Your task to perform on an android device: change the clock display to show seconds Image 0: 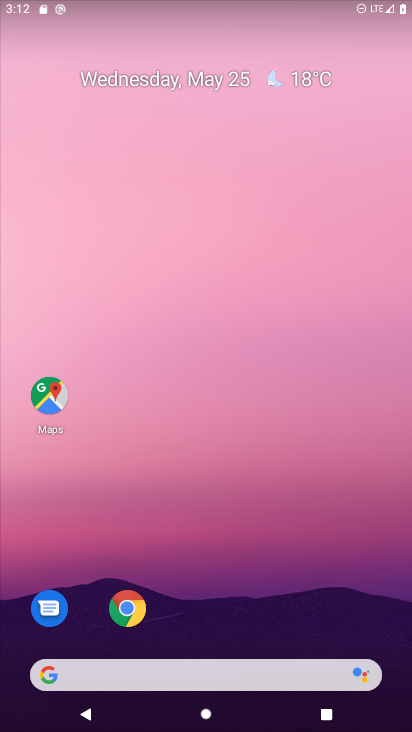
Step 0: drag from (404, 589) to (302, 121)
Your task to perform on an android device: change the clock display to show seconds Image 1: 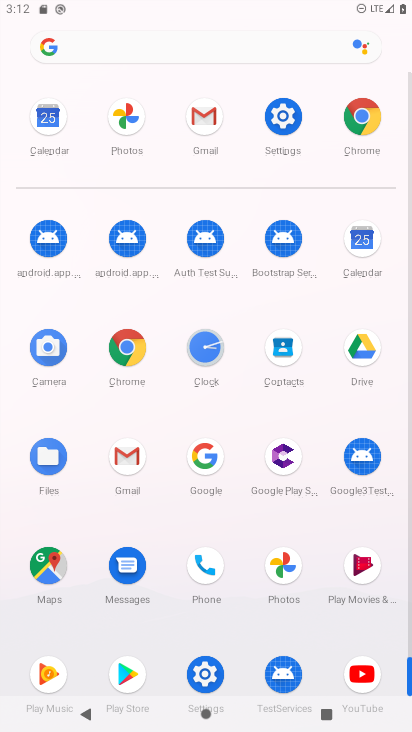
Step 1: click (406, 644)
Your task to perform on an android device: change the clock display to show seconds Image 2: 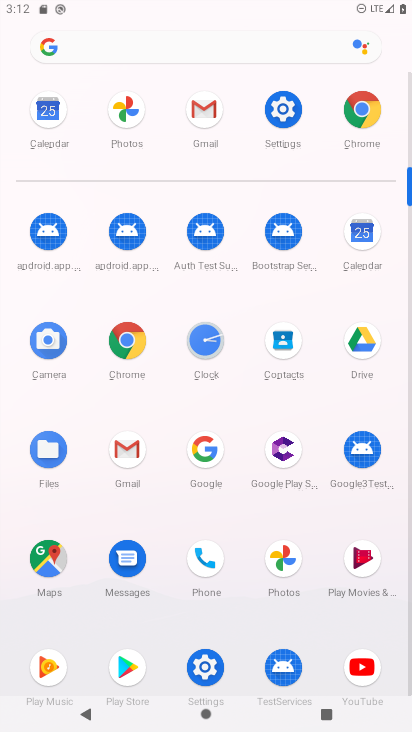
Step 2: click (204, 340)
Your task to perform on an android device: change the clock display to show seconds Image 3: 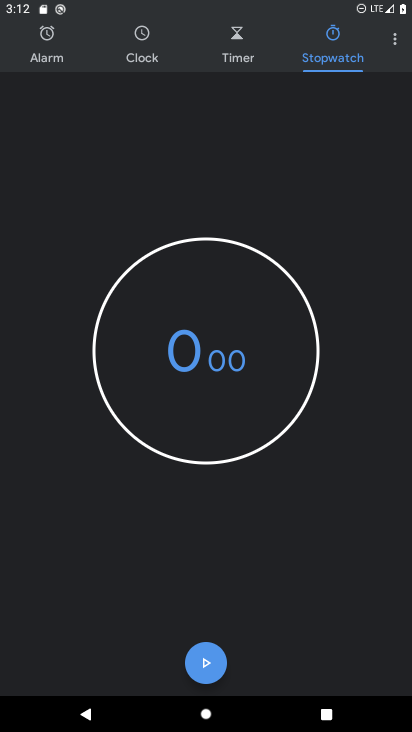
Step 3: click (394, 45)
Your task to perform on an android device: change the clock display to show seconds Image 4: 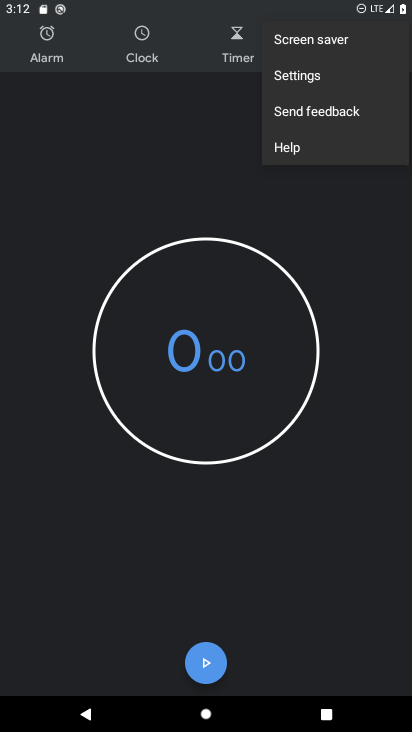
Step 4: click (301, 76)
Your task to perform on an android device: change the clock display to show seconds Image 5: 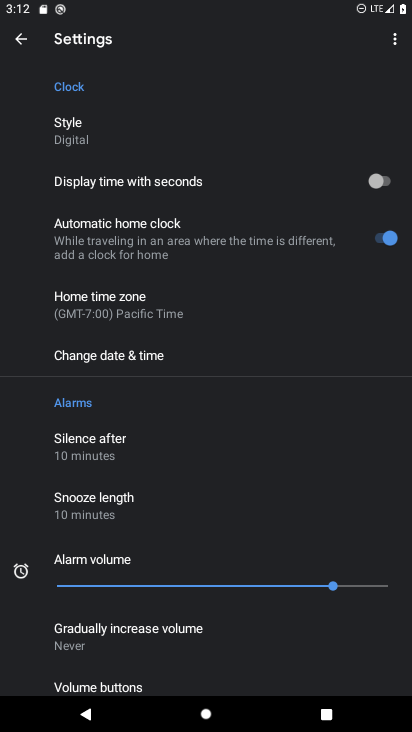
Step 5: click (389, 181)
Your task to perform on an android device: change the clock display to show seconds Image 6: 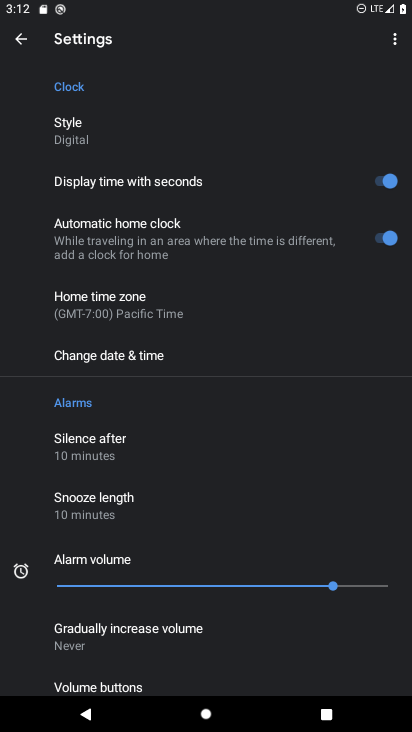
Step 6: task complete